Your task to perform on an android device: Go to Maps Image 0: 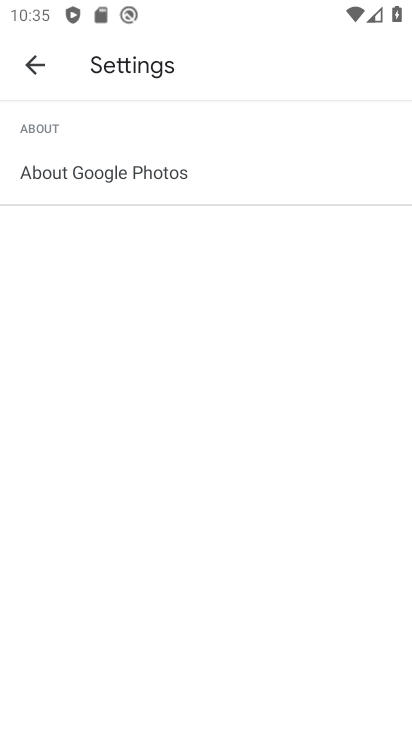
Step 0: press back button
Your task to perform on an android device: Go to Maps Image 1: 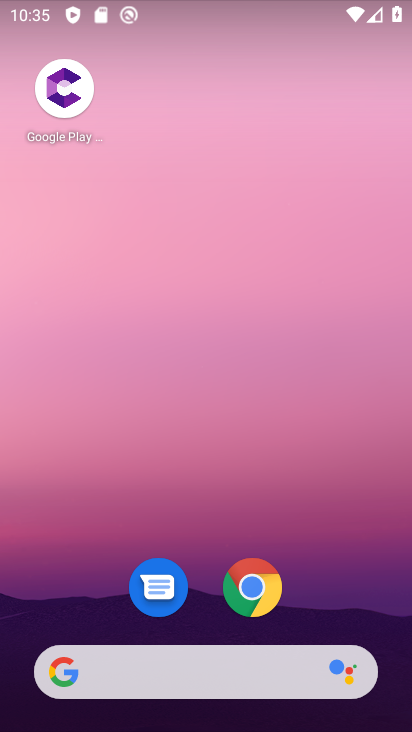
Step 1: drag from (318, 566) to (206, 66)
Your task to perform on an android device: Go to Maps Image 2: 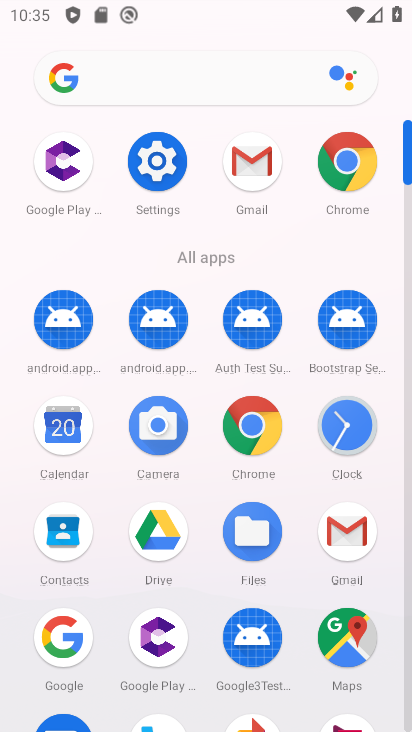
Step 2: click (341, 630)
Your task to perform on an android device: Go to Maps Image 3: 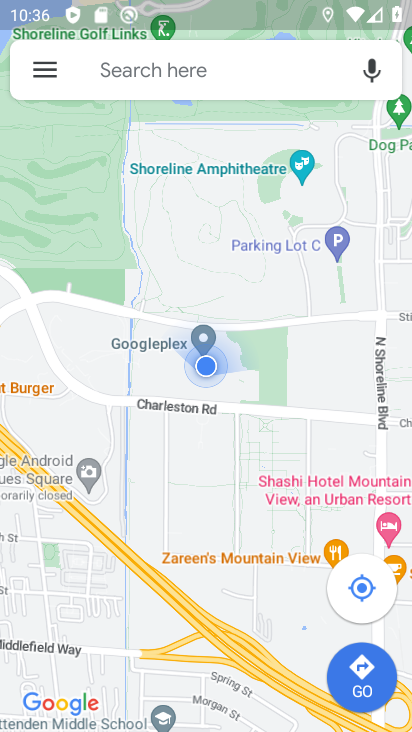
Step 3: task complete